Your task to perform on an android device: Go to Android settings Image 0: 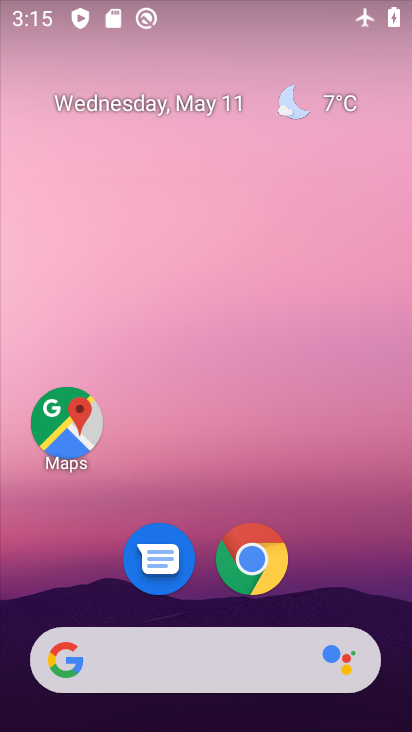
Step 0: drag from (219, 611) to (216, 133)
Your task to perform on an android device: Go to Android settings Image 1: 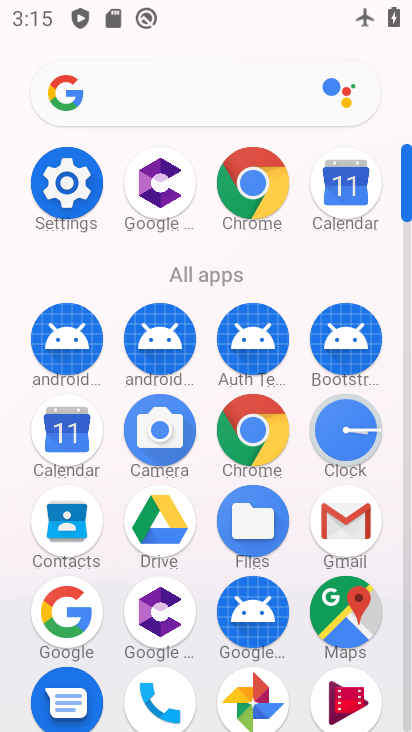
Step 1: drag from (201, 626) to (160, 278)
Your task to perform on an android device: Go to Android settings Image 2: 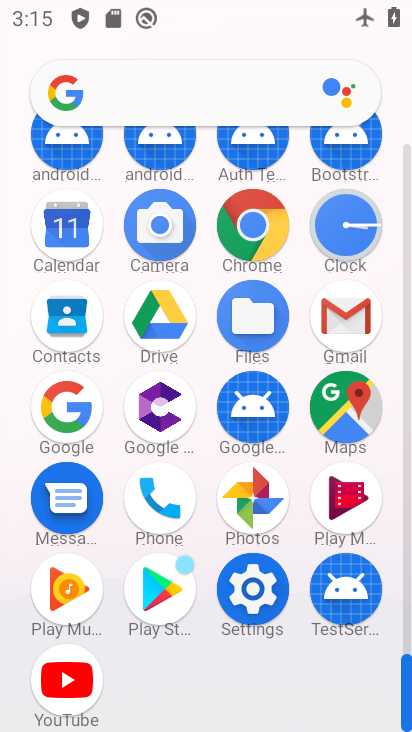
Step 2: click (257, 586)
Your task to perform on an android device: Go to Android settings Image 3: 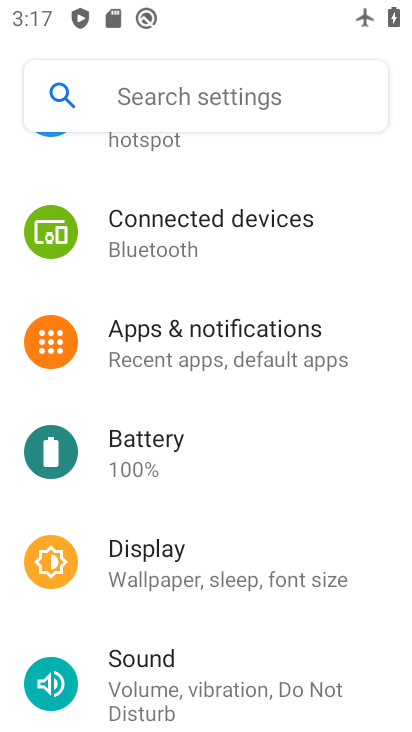
Step 3: task complete